Your task to perform on an android device: turn off translation in the chrome app Image 0: 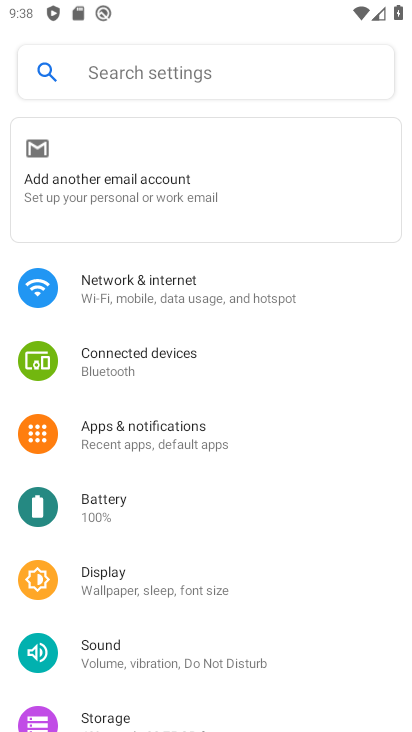
Step 0: press home button
Your task to perform on an android device: turn off translation in the chrome app Image 1: 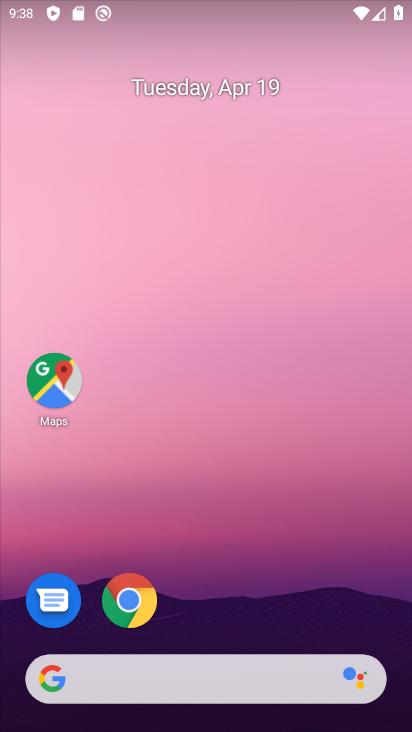
Step 1: drag from (306, 600) to (336, 46)
Your task to perform on an android device: turn off translation in the chrome app Image 2: 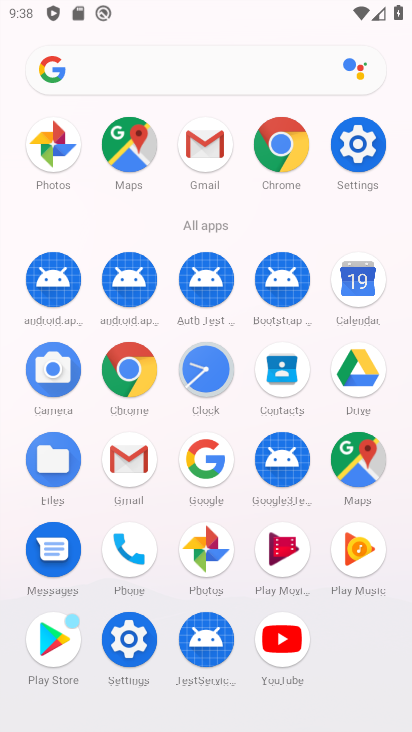
Step 2: click (132, 370)
Your task to perform on an android device: turn off translation in the chrome app Image 3: 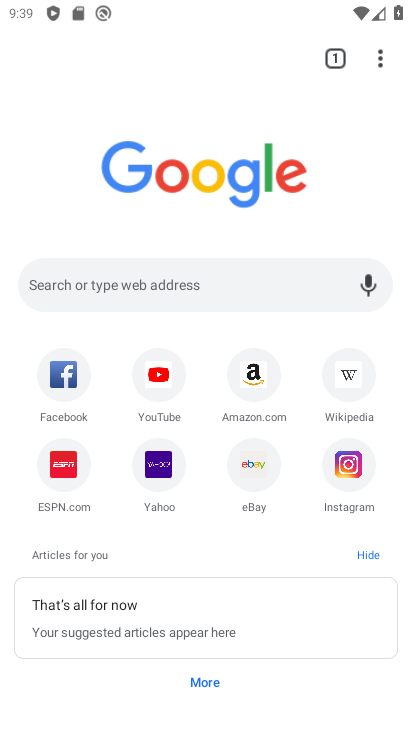
Step 3: click (380, 54)
Your task to perform on an android device: turn off translation in the chrome app Image 4: 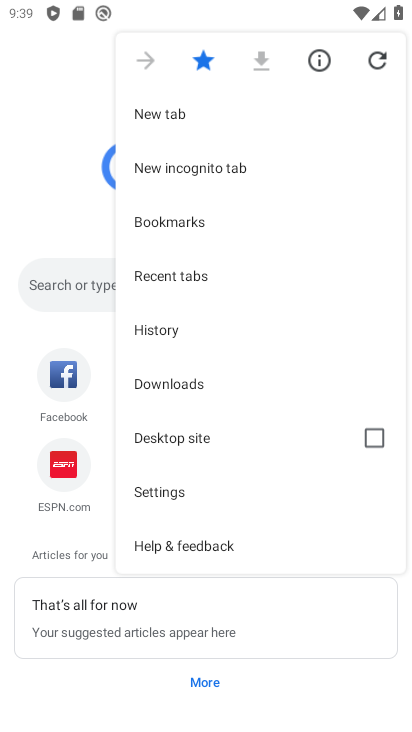
Step 4: click (177, 495)
Your task to perform on an android device: turn off translation in the chrome app Image 5: 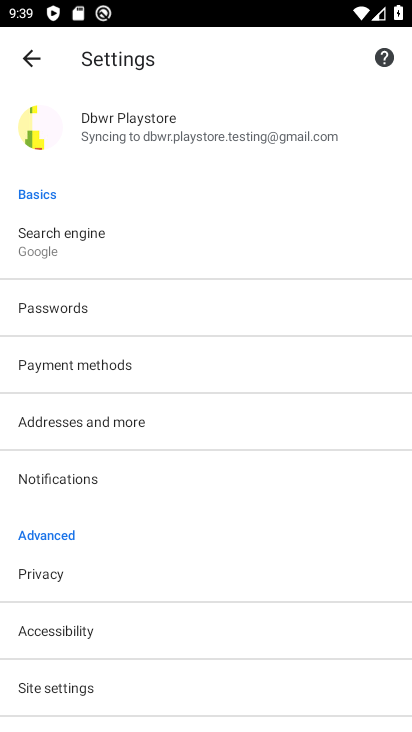
Step 5: drag from (162, 677) to (182, 274)
Your task to perform on an android device: turn off translation in the chrome app Image 6: 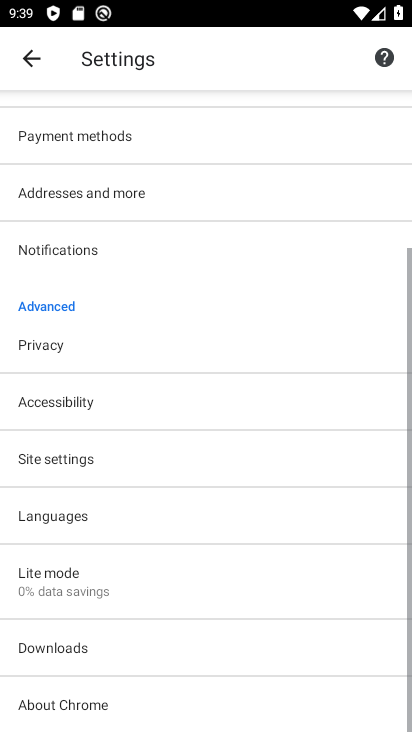
Step 6: click (70, 509)
Your task to perform on an android device: turn off translation in the chrome app Image 7: 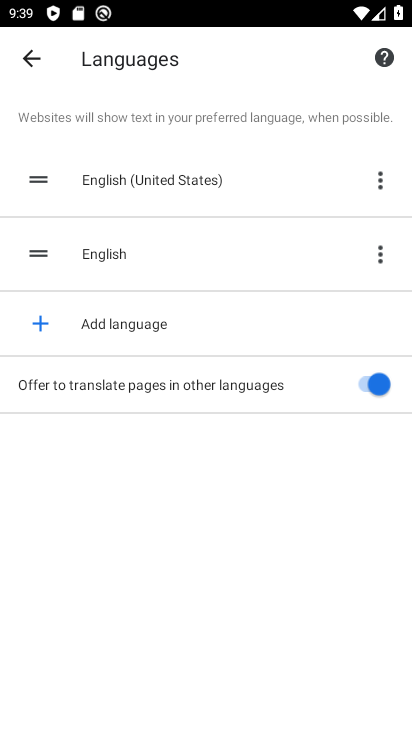
Step 7: click (332, 380)
Your task to perform on an android device: turn off translation in the chrome app Image 8: 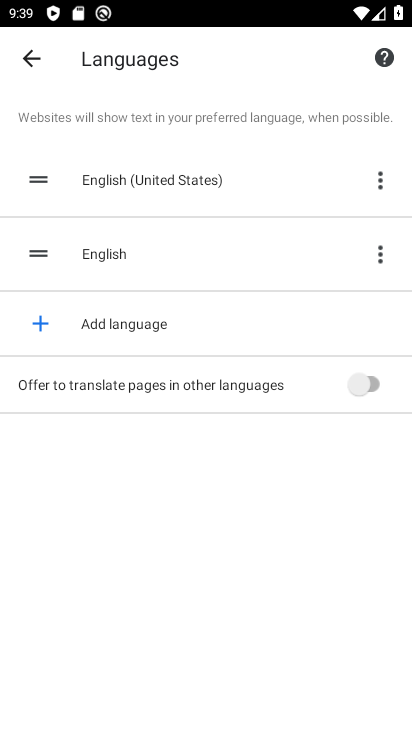
Step 8: task complete